Your task to perform on an android device: Open settings Image 0: 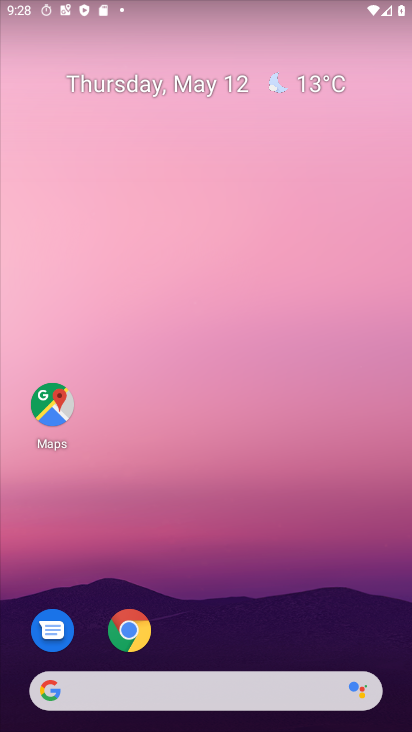
Step 0: drag from (249, 693) to (248, 101)
Your task to perform on an android device: Open settings Image 1: 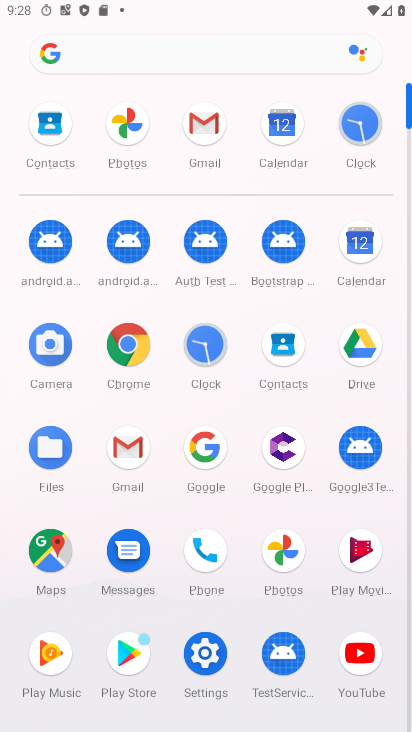
Step 1: click (224, 670)
Your task to perform on an android device: Open settings Image 2: 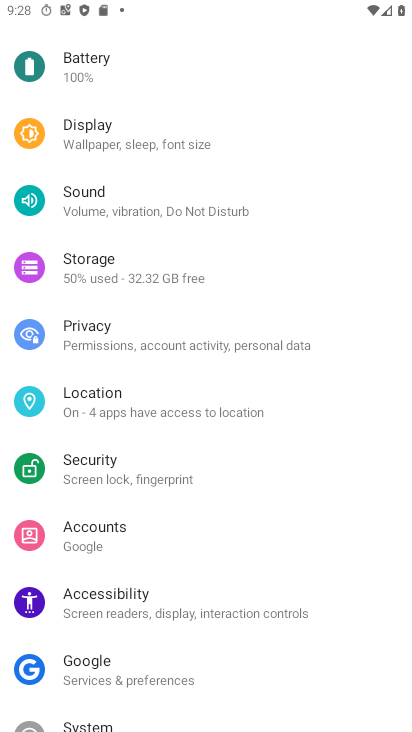
Step 2: task complete